Your task to perform on an android device: Open the map Image 0: 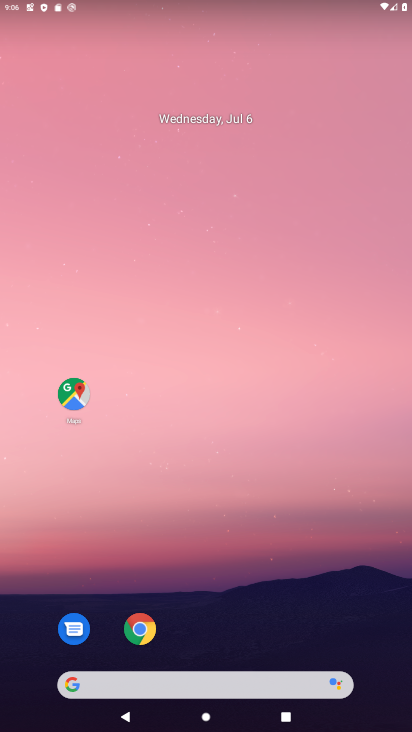
Step 0: drag from (306, 706) to (303, 147)
Your task to perform on an android device: Open the map Image 1: 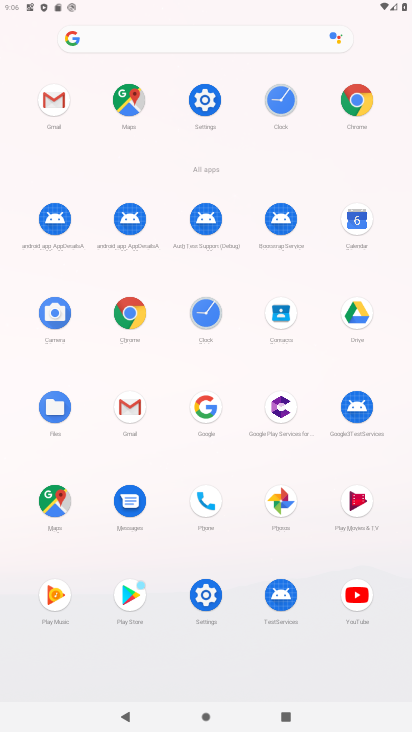
Step 1: click (59, 501)
Your task to perform on an android device: Open the map Image 2: 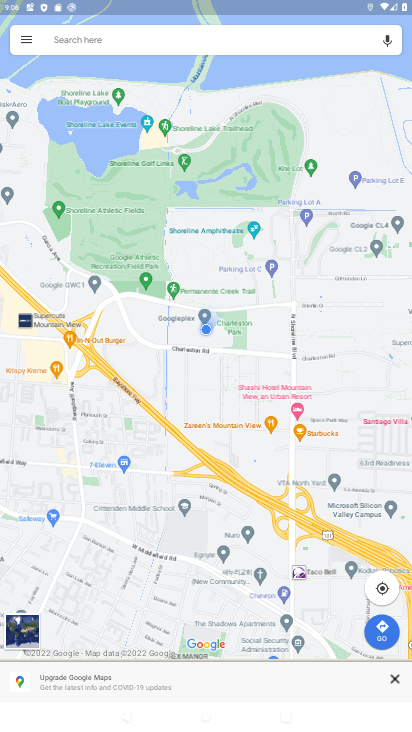
Step 2: task complete